Your task to perform on an android device: delete the emails in spam in the gmail app Image 0: 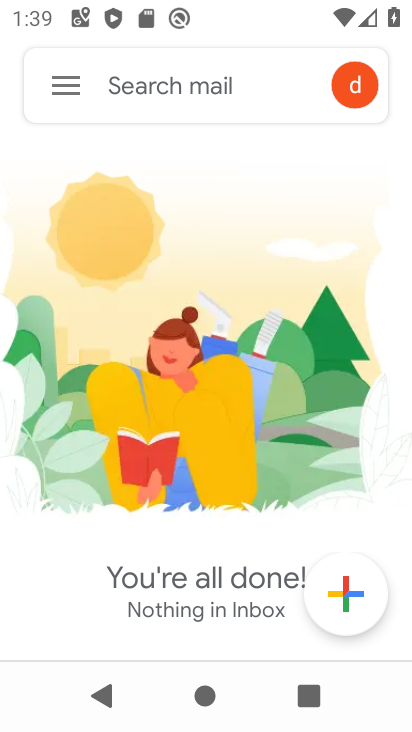
Step 0: click (62, 92)
Your task to perform on an android device: delete the emails in spam in the gmail app Image 1: 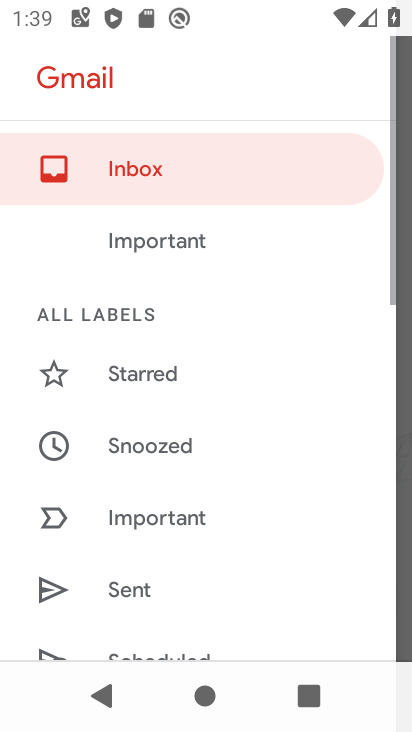
Step 1: drag from (177, 585) to (180, 222)
Your task to perform on an android device: delete the emails in spam in the gmail app Image 2: 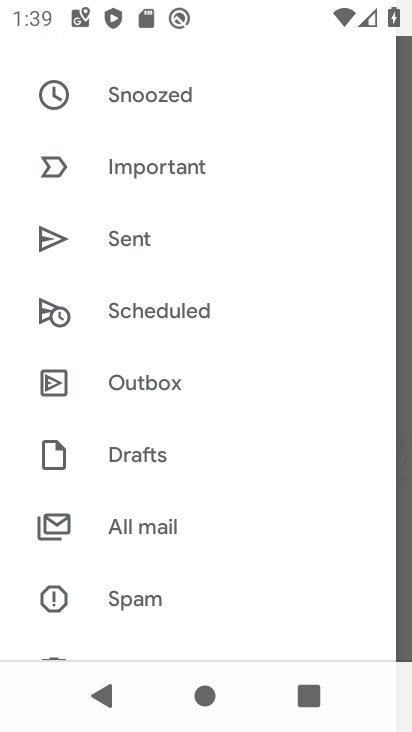
Step 2: drag from (192, 513) to (207, 281)
Your task to perform on an android device: delete the emails in spam in the gmail app Image 3: 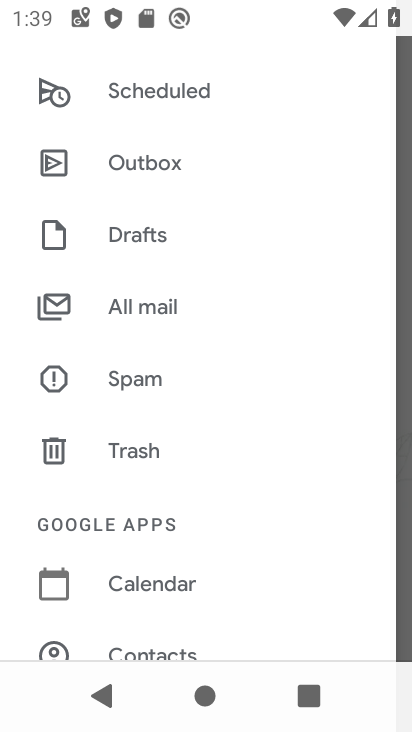
Step 3: drag from (174, 257) to (192, 593)
Your task to perform on an android device: delete the emails in spam in the gmail app Image 4: 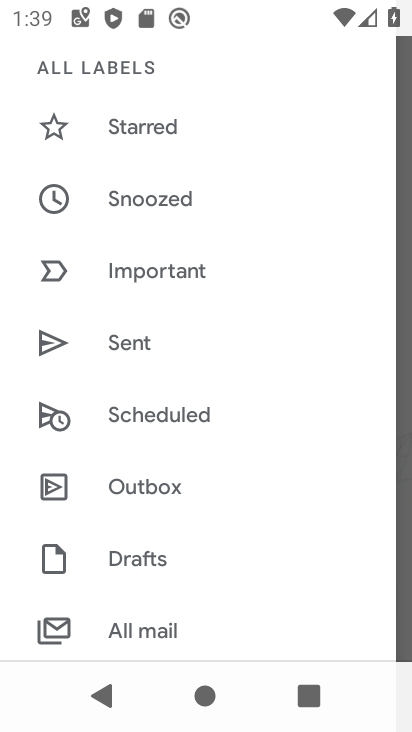
Step 4: drag from (157, 307) to (274, 296)
Your task to perform on an android device: delete the emails in spam in the gmail app Image 5: 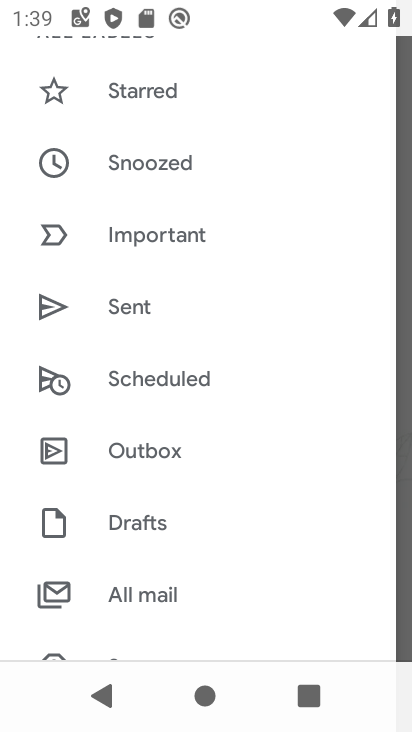
Step 5: drag from (132, 589) to (149, 314)
Your task to perform on an android device: delete the emails in spam in the gmail app Image 6: 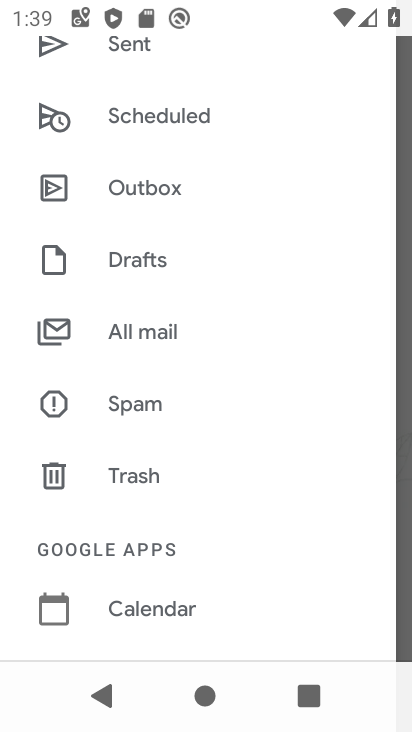
Step 6: click (132, 394)
Your task to perform on an android device: delete the emails in spam in the gmail app Image 7: 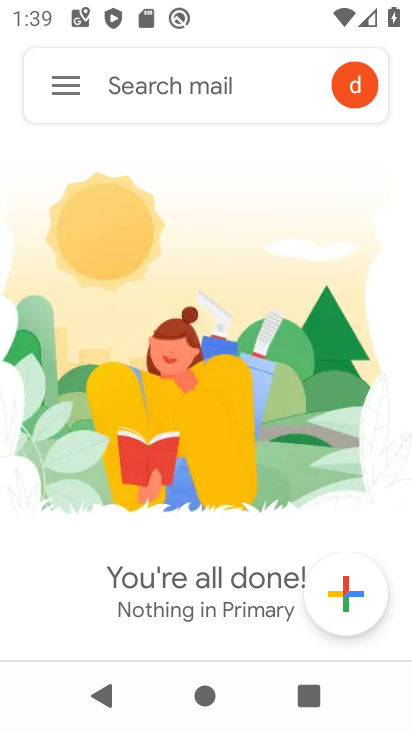
Step 7: task complete